Your task to perform on an android device: turn on the 12-hour format for clock Image 0: 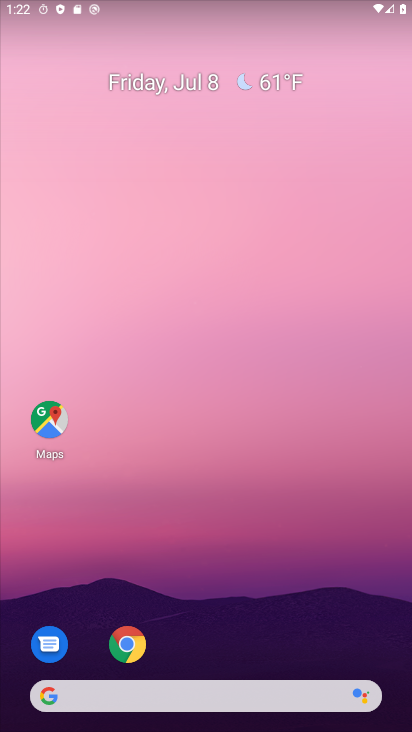
Step 0: drag from (220, 571) to (210, 76)
Your task to perform on an android device: turn on the 12-hour format for clock Image 1: 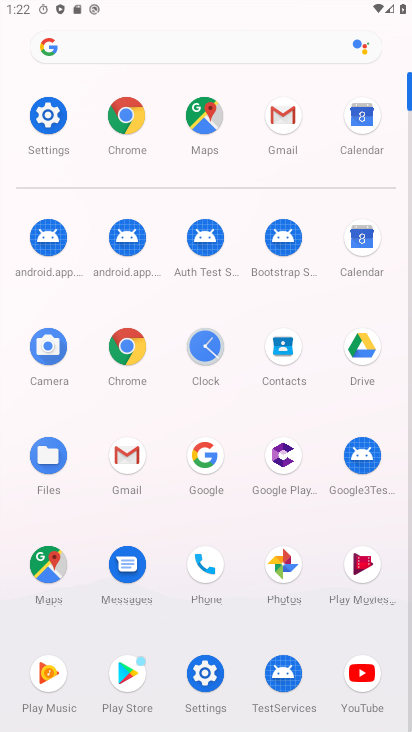
Step 1: click (200, 339)
Your task to perform on an android device: turn on the 12-hour format for clock Image 2: 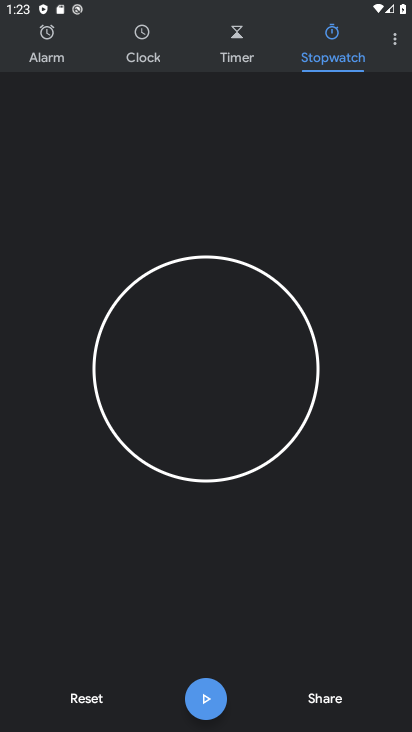
Step 2: click (401, 45)
Your task to perform on an android device: turn on the 12-hour format for clock Image 3: 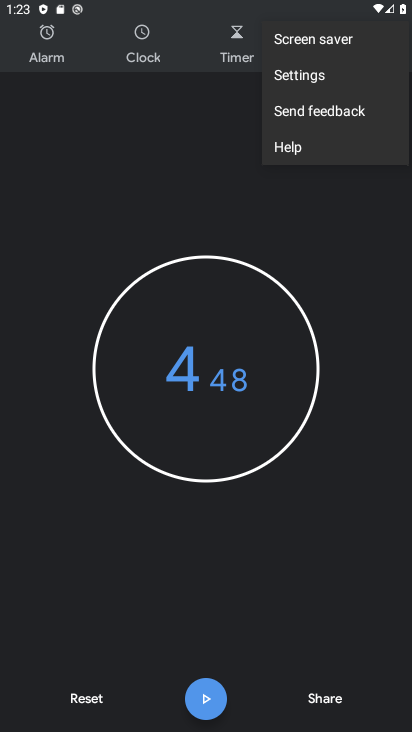
Step 3: click (318, 78)
Your task to perform on an android device: turn on the 12-hour format for clock Image 4: 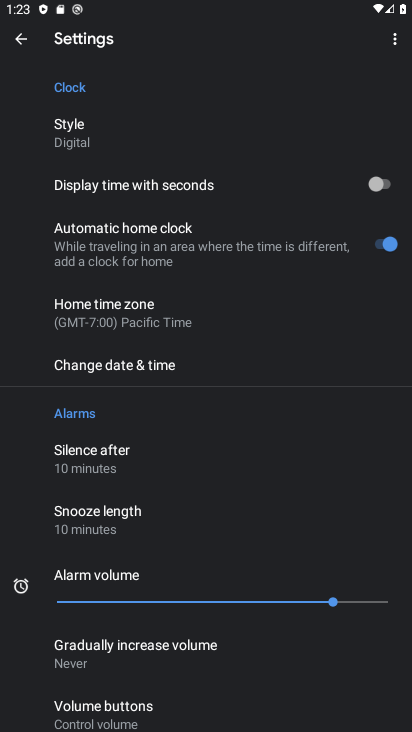
Step 4: click (391, 183)
Your task to perform on an android device: turn on the 12-hour format for clock Image 5: 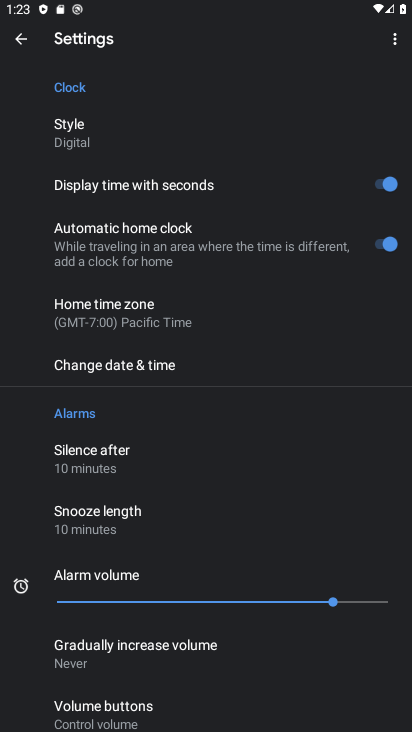
Step 5: task complete